Your task to perform on an android device: What is the news today? Image 0: 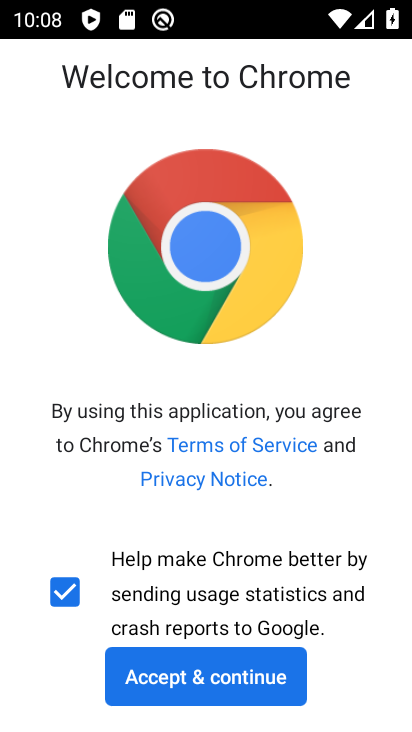
Step 0: press back button
Your task to perform on an android device: What is the news today? Image 1: 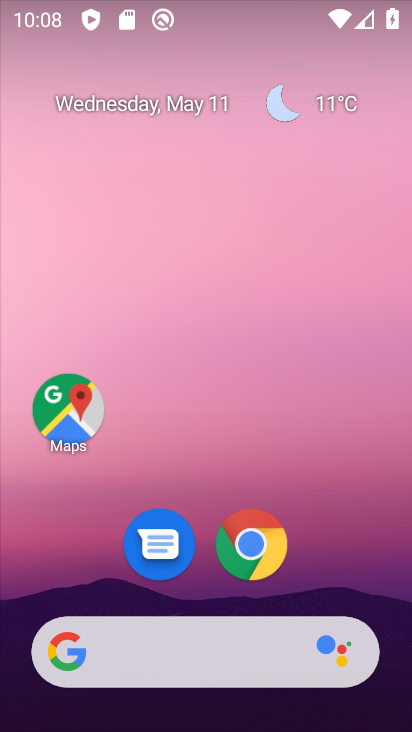
Step 1: click (178, 651)
Your task to perform on an android device: What is the news today? Image 2: 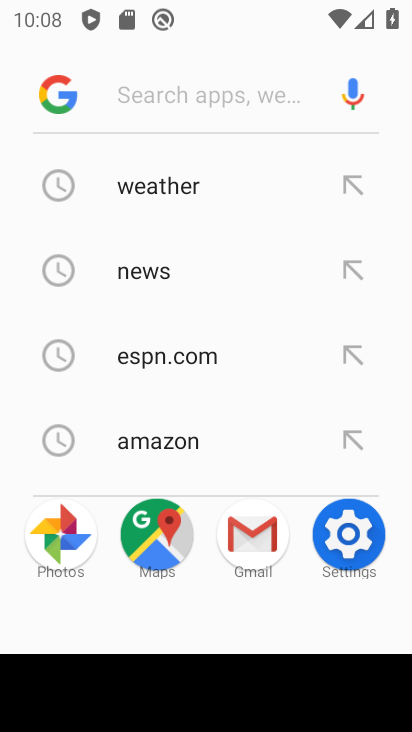
Step 2: click (147, 271)
Your task to perform on an android device: What is the news today? Image 3: 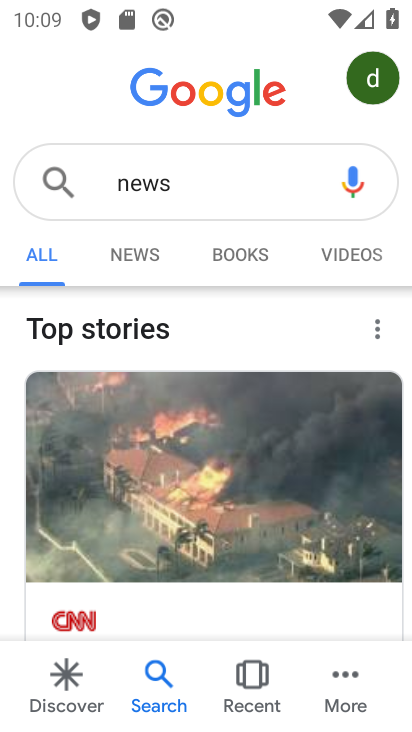
Step 3: task complete